Your task to perform on an android device: allow cookies in the chrome app Image 0: 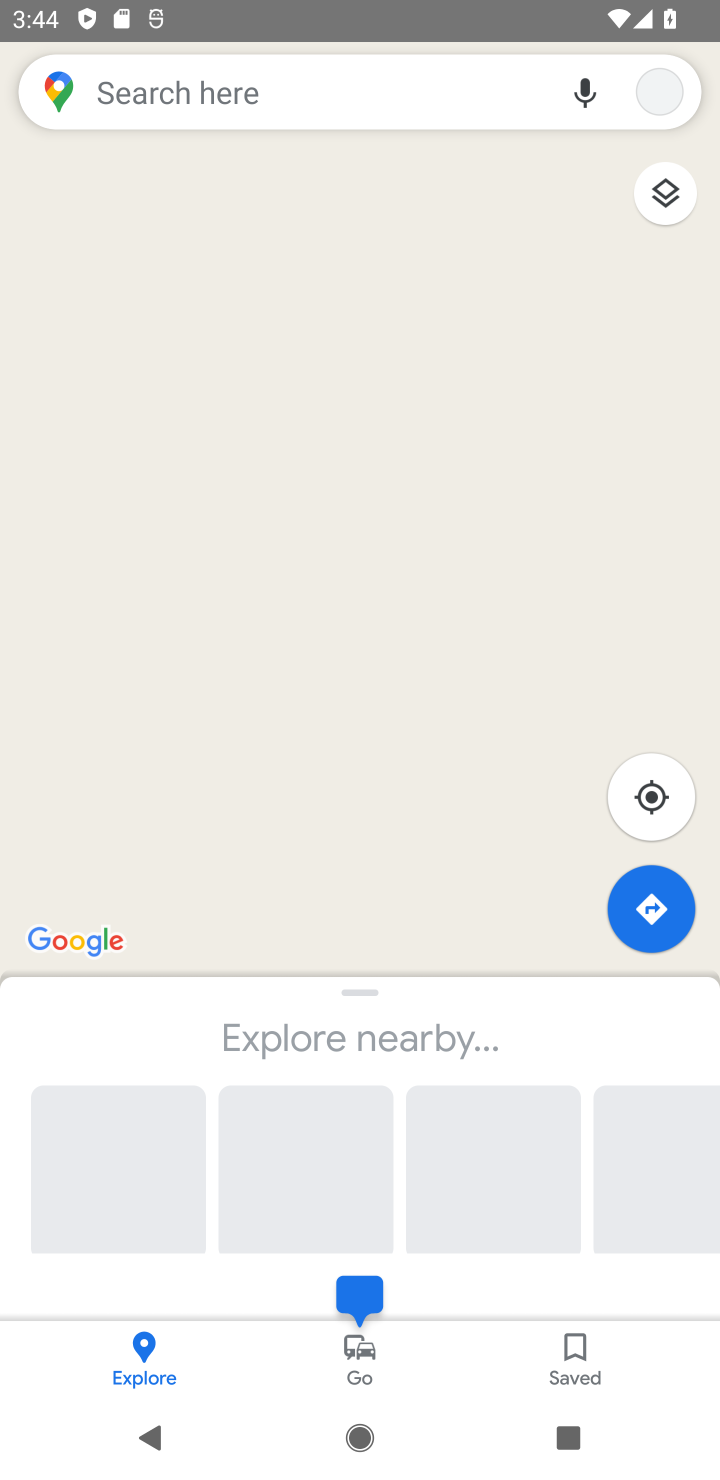
Step 0: drag from (359, 1227) to (508, 583)
Your task to perform on an android device: allow cookies in the chrome app Image 1: 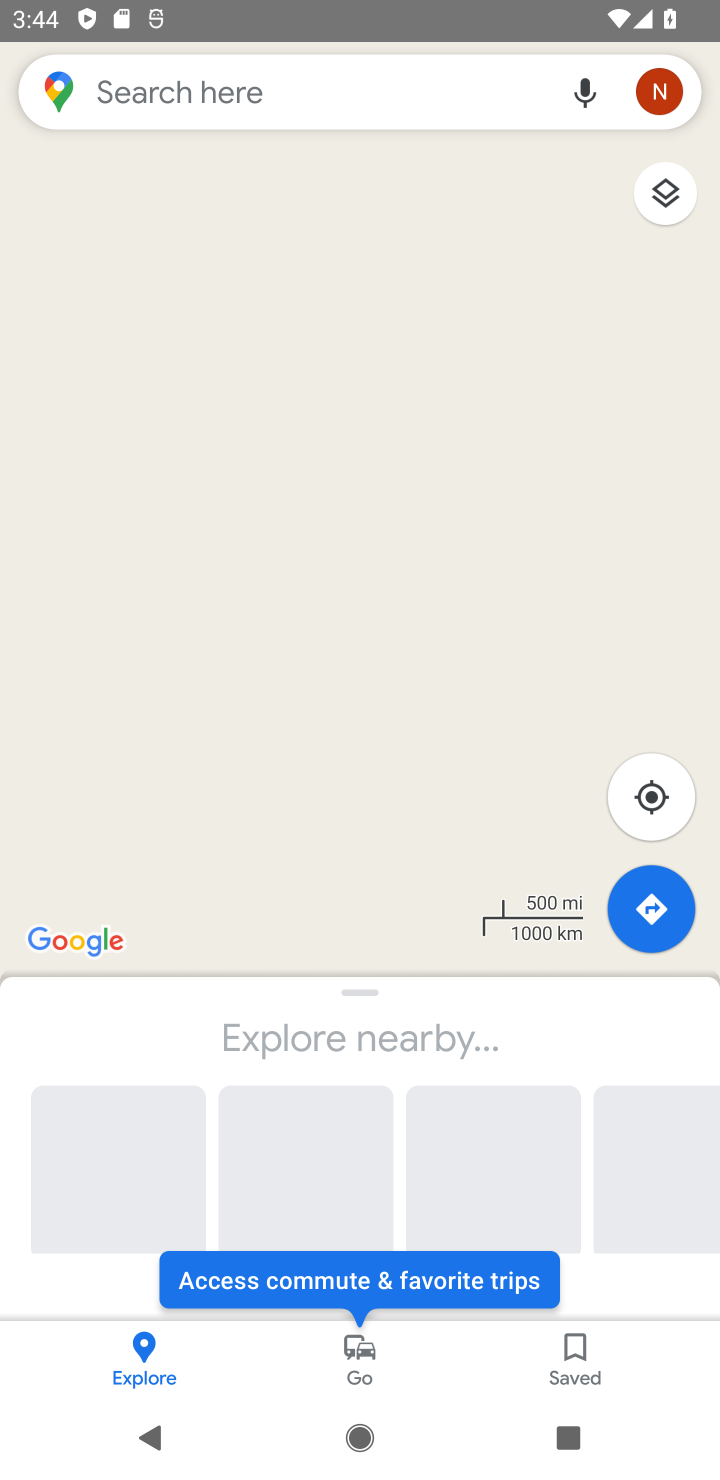
Step 1: press home button
Your task to perform on an android device: allow cookies in the chrome app Image 2: 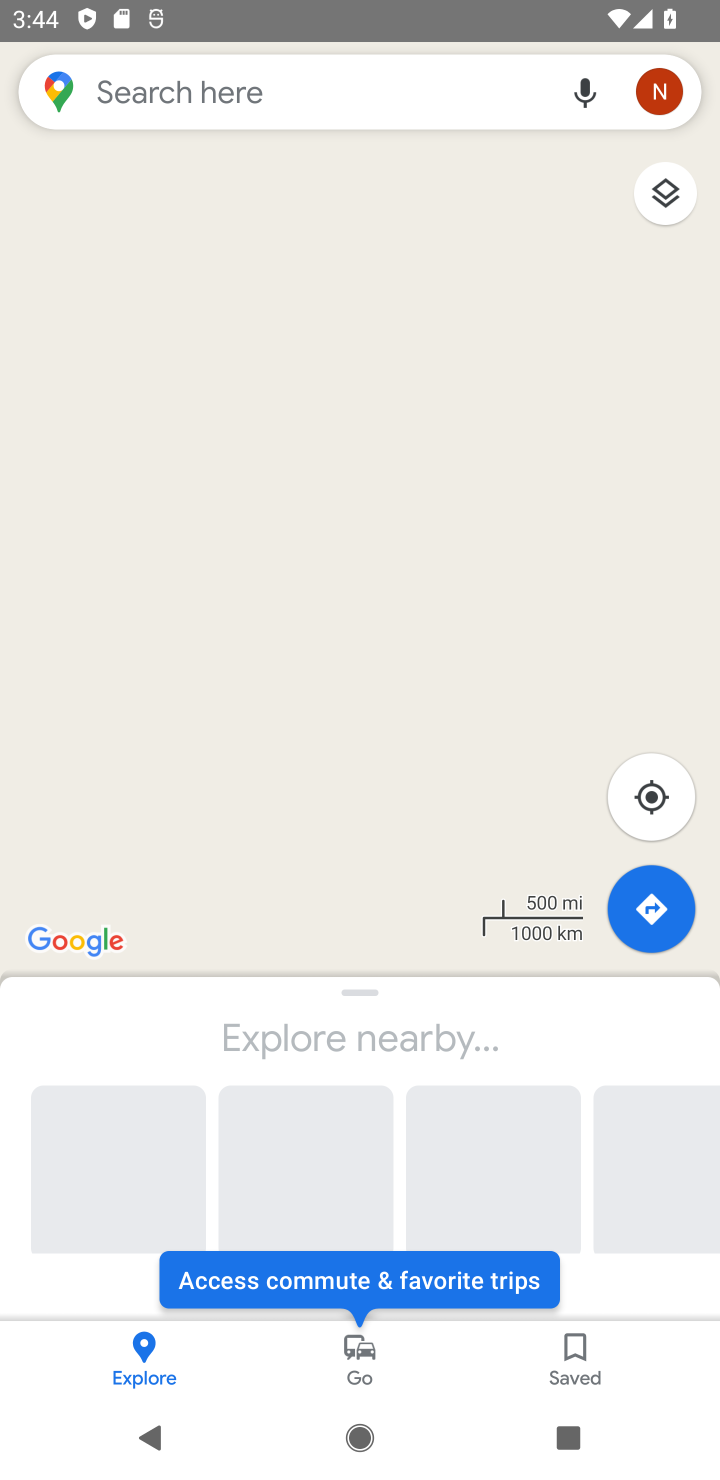
Step 2: drag from (456, 1012) to (563, 117)
Your task to perform on an android device: allow cookies in the chrome app Image 3: 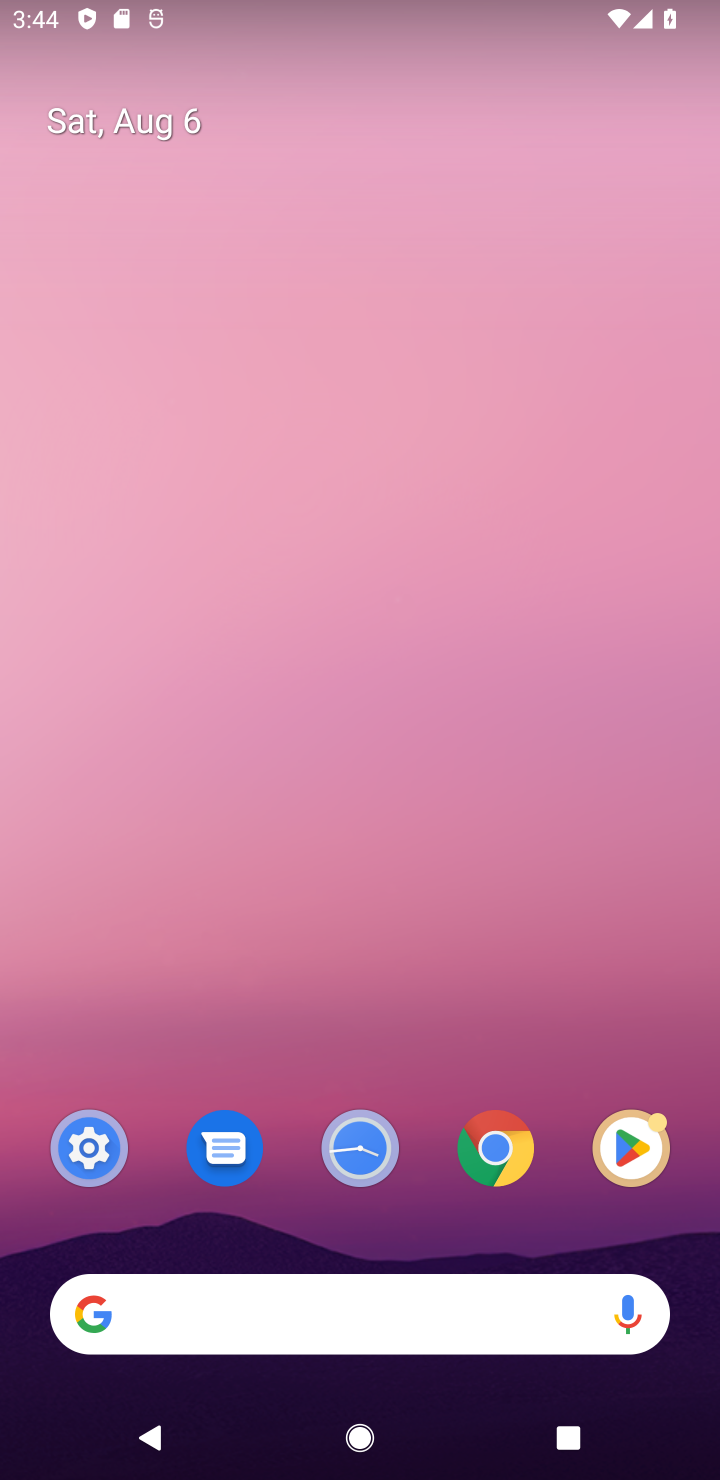
Step 3: click (504, 1129)
Your task to perform on an android device: allow cookies in the chrome app Image 4: 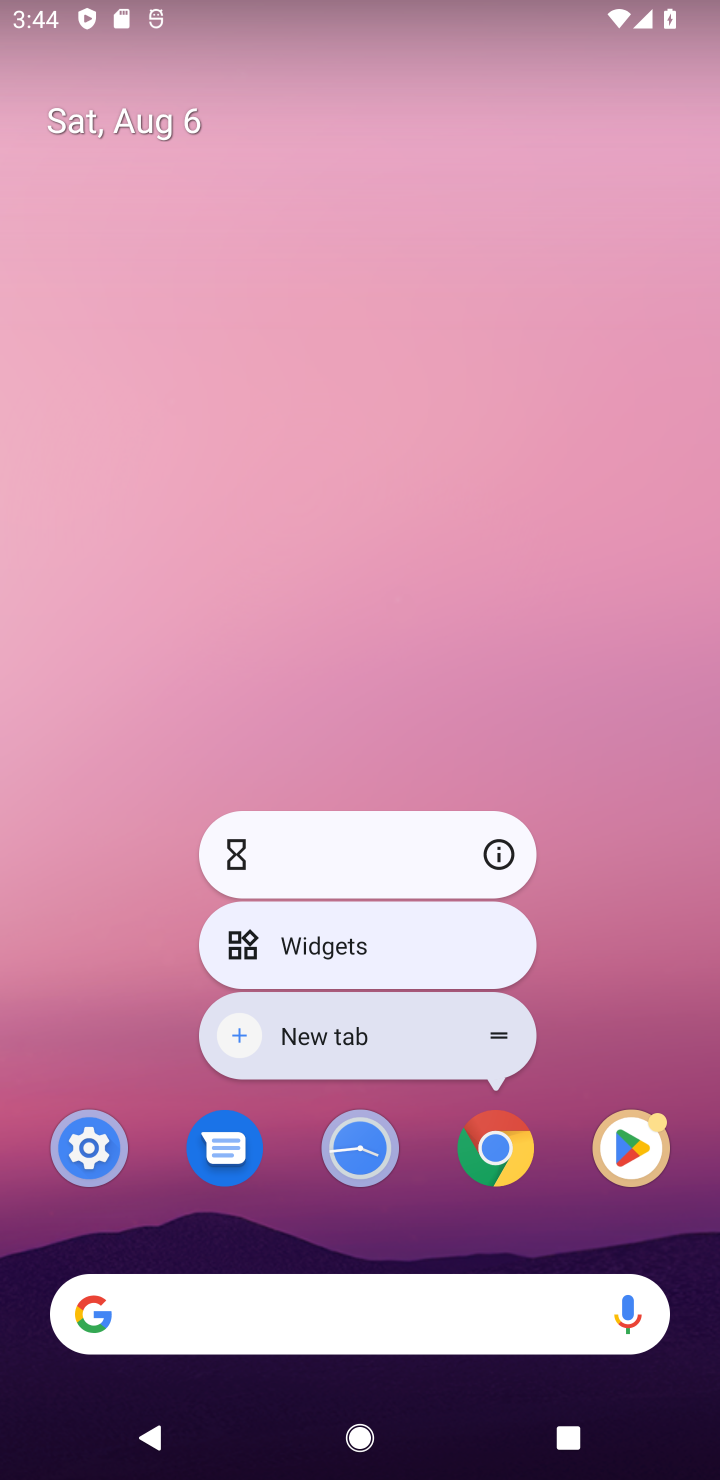
Step 4: click (483, 856)
Your task to perform on an android device: allow cookies in the chrome app Image 5: 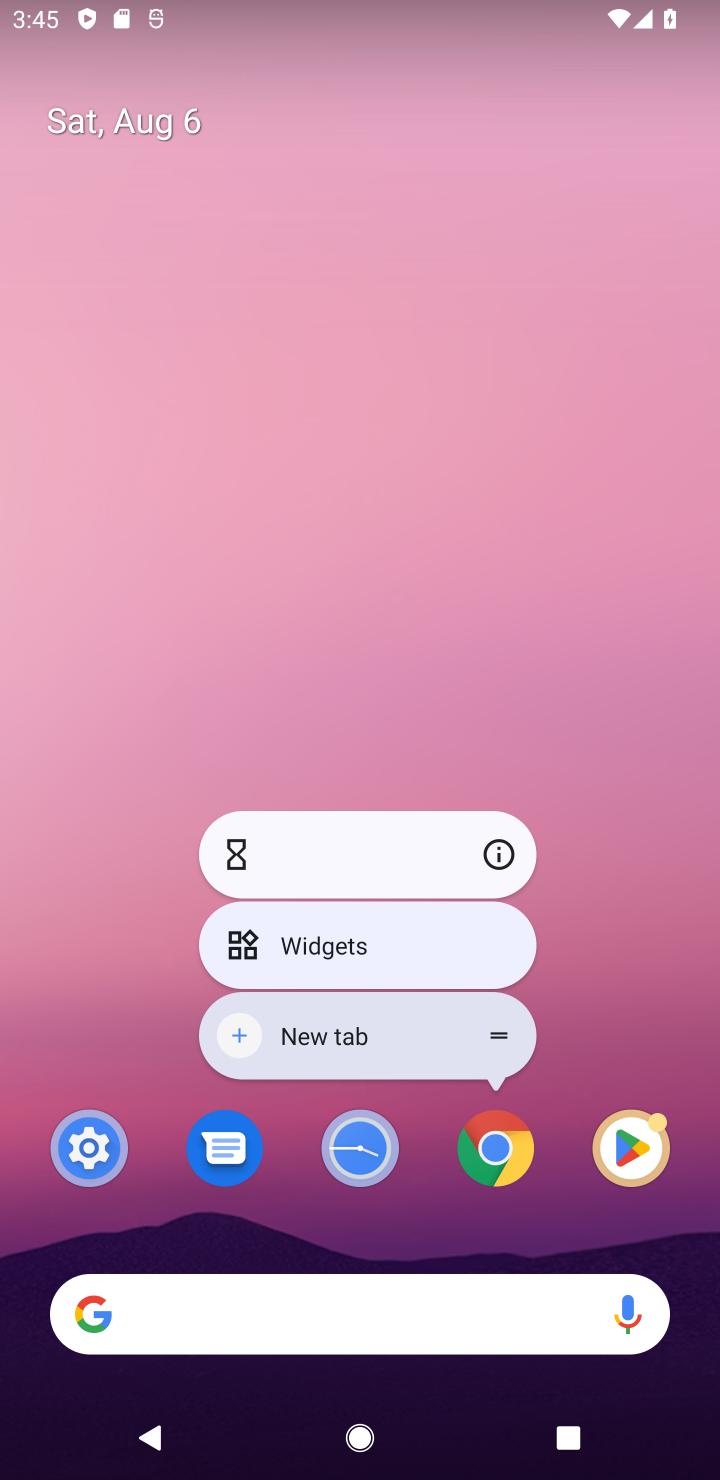
Step 5: click (498, 842)
Your task to perform on an android device: allow cookies in the chrome app Image 6: 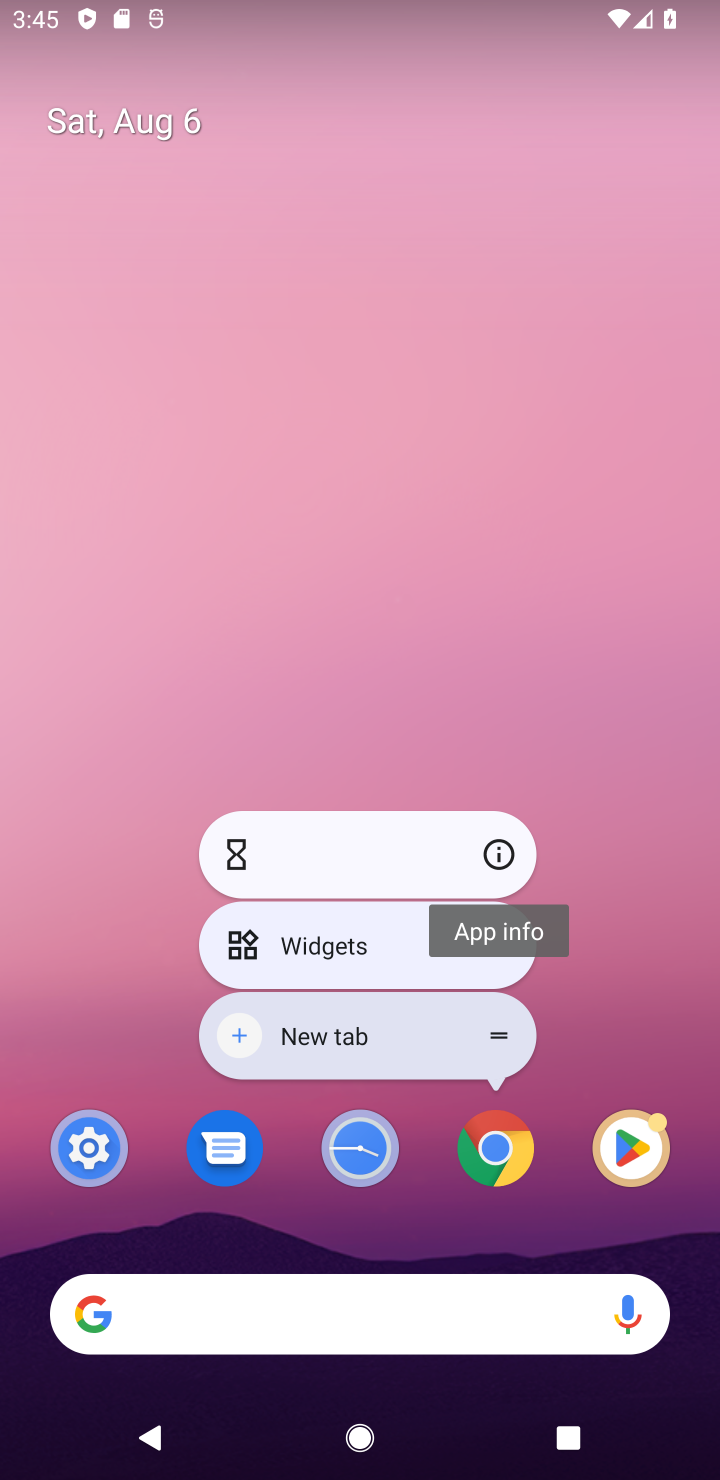
Step 6: click (518, 854)
Your task to perform on an android device: allow cookies in the chrome app Image 7: 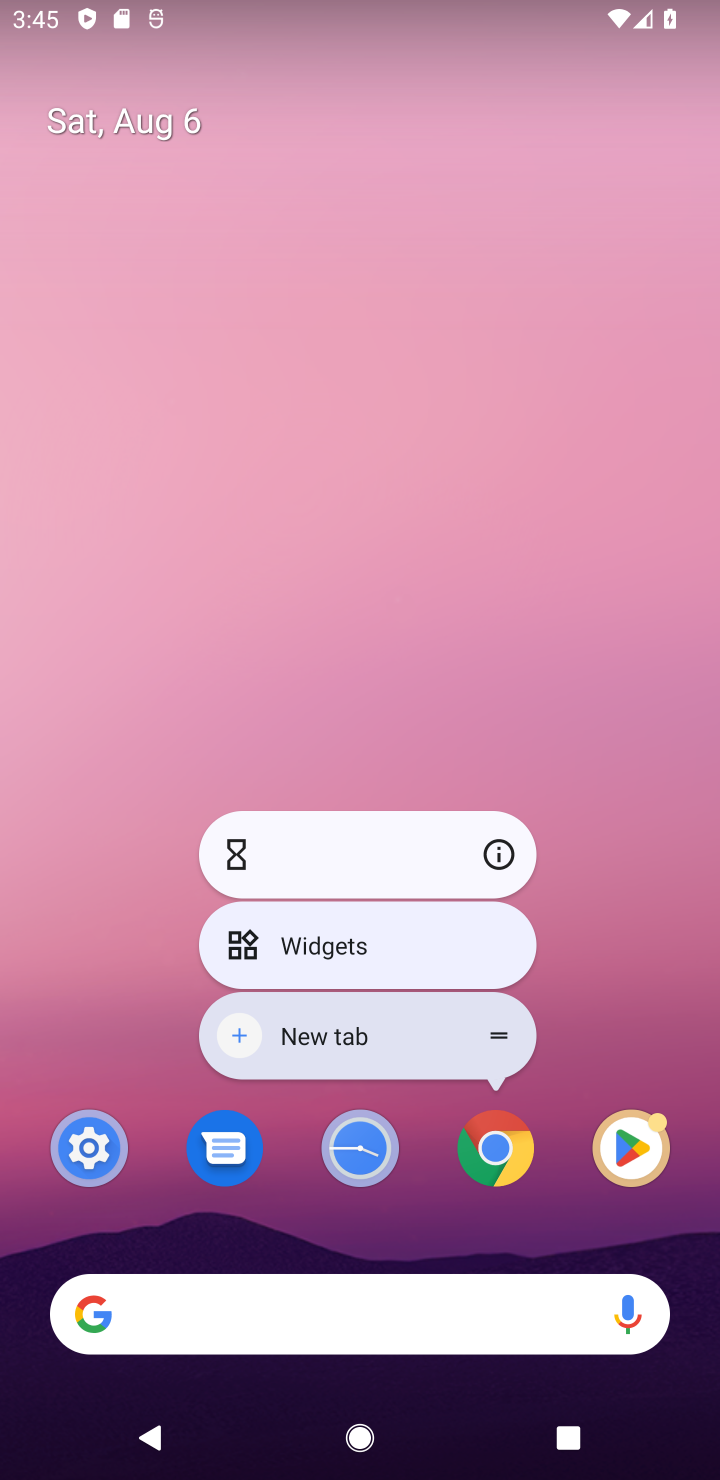
Step 7: click (486, 854)
Your task to perform on an android device: allow cookies in the chrome app Image 8: 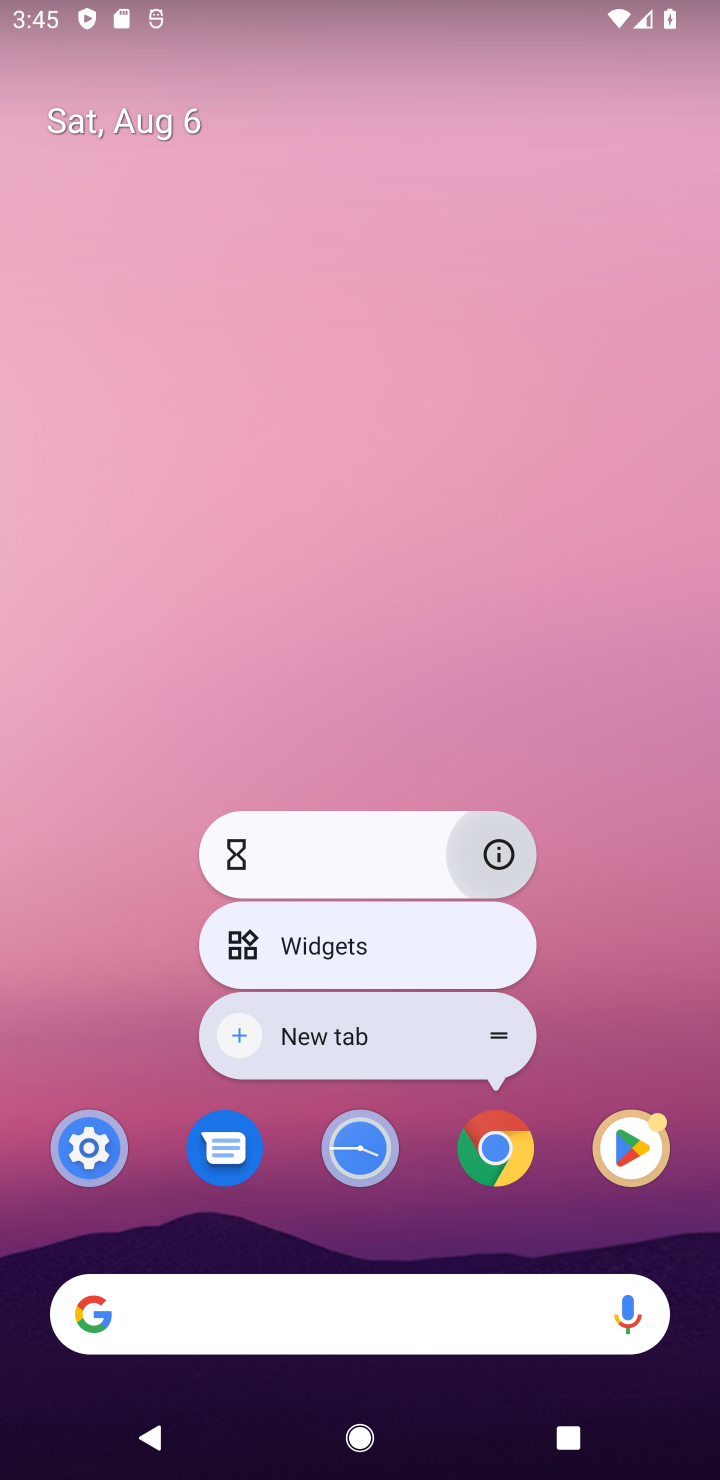
Step 8: click (486, 854)
Your task to perform on an android device: allow cookies in the chrome app Image 9: 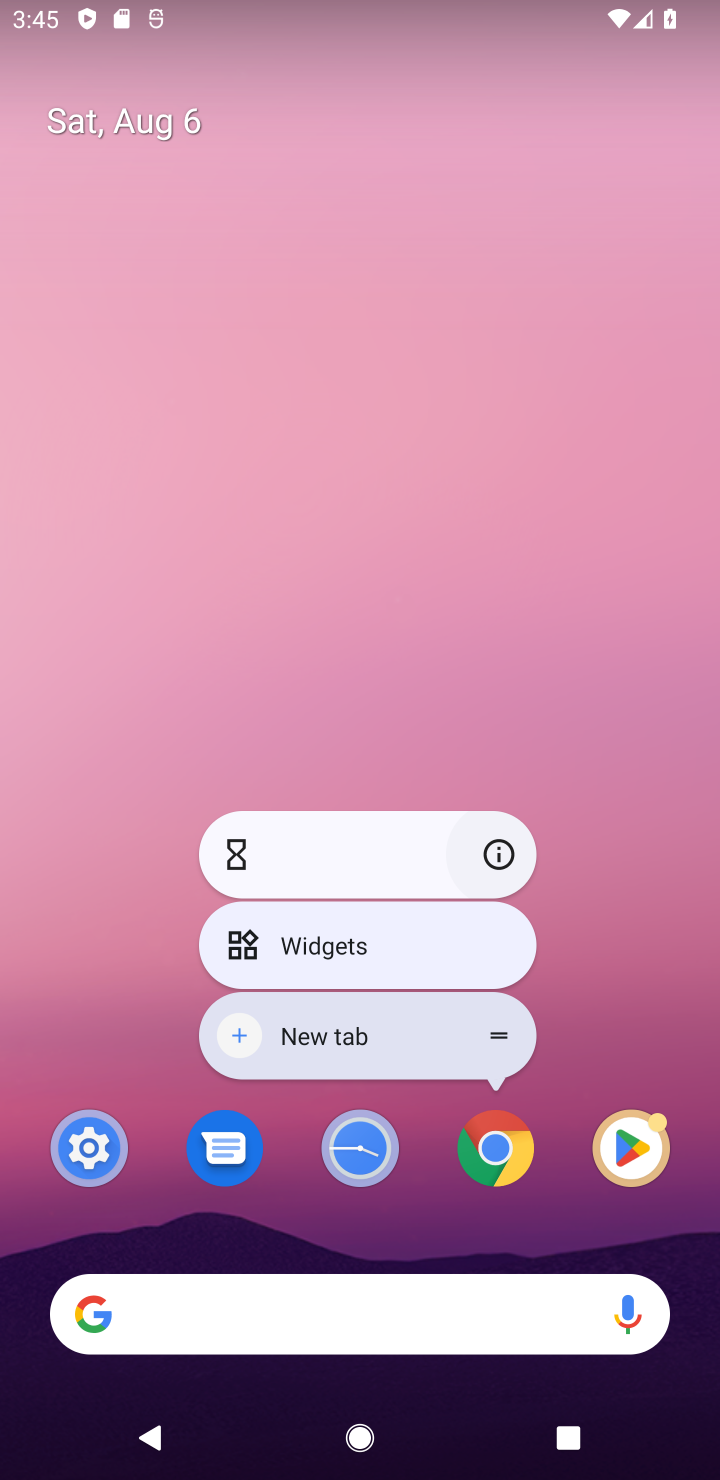
Step 9: click (486, 852)
Your task to perform on an android device: allow cookies in the chrome app Image 10: 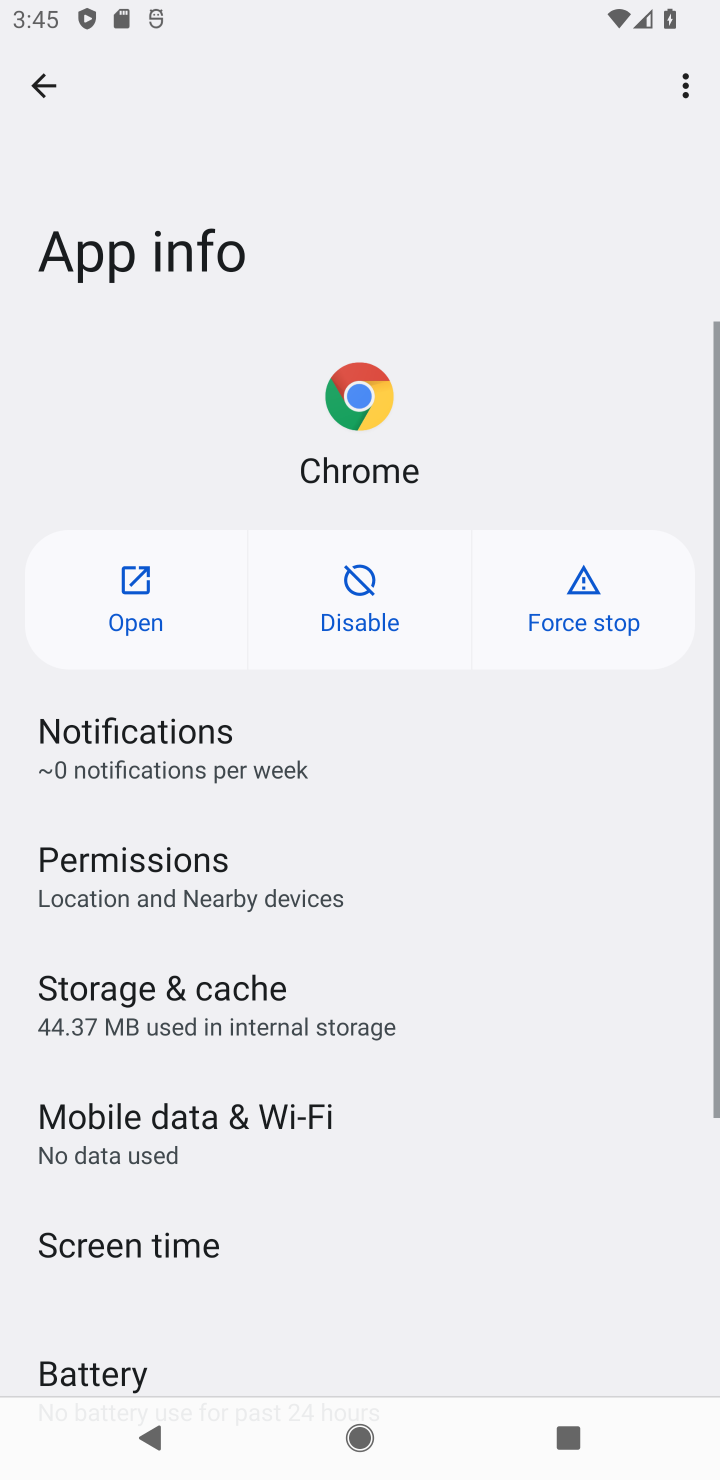
Step 10: click (114, 610)
Your task to perform on an android device: allow cookies in the chrome app Image 11: 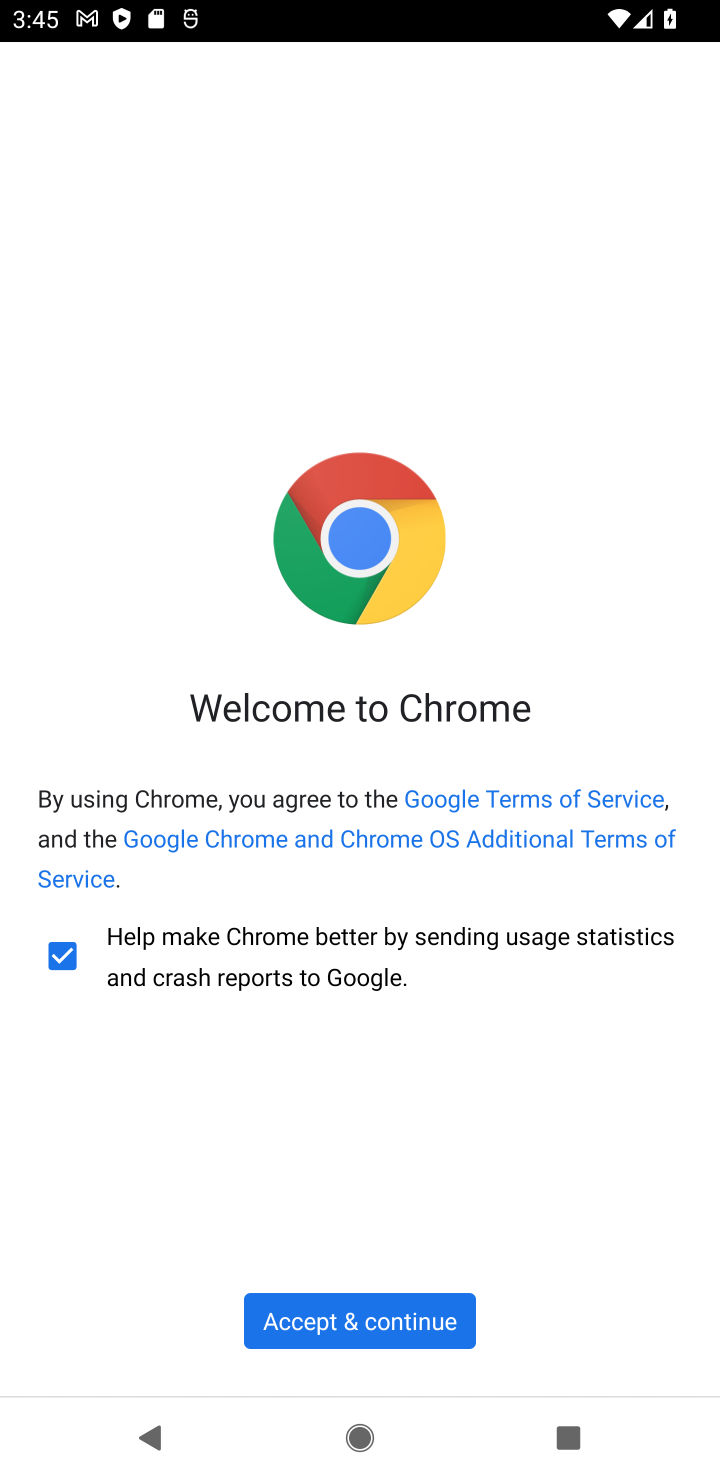
Step 11: drag from (340, 924) to (340, 615)
Your task to perform on an android device: allow cookies in the chrome app Image 12: 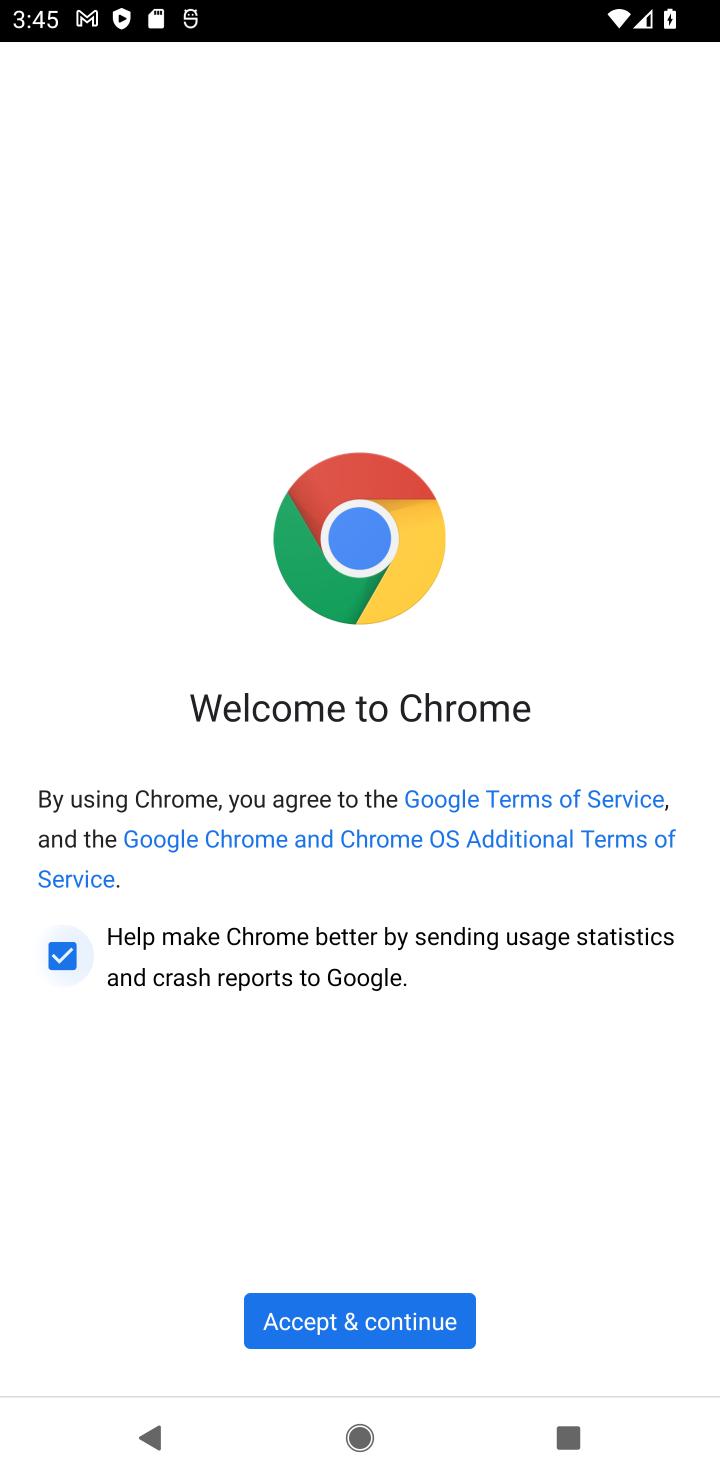
Step 12: click (394, 1333)
Your task to perform on an android device: allow cookies in the chrome app Image 13: 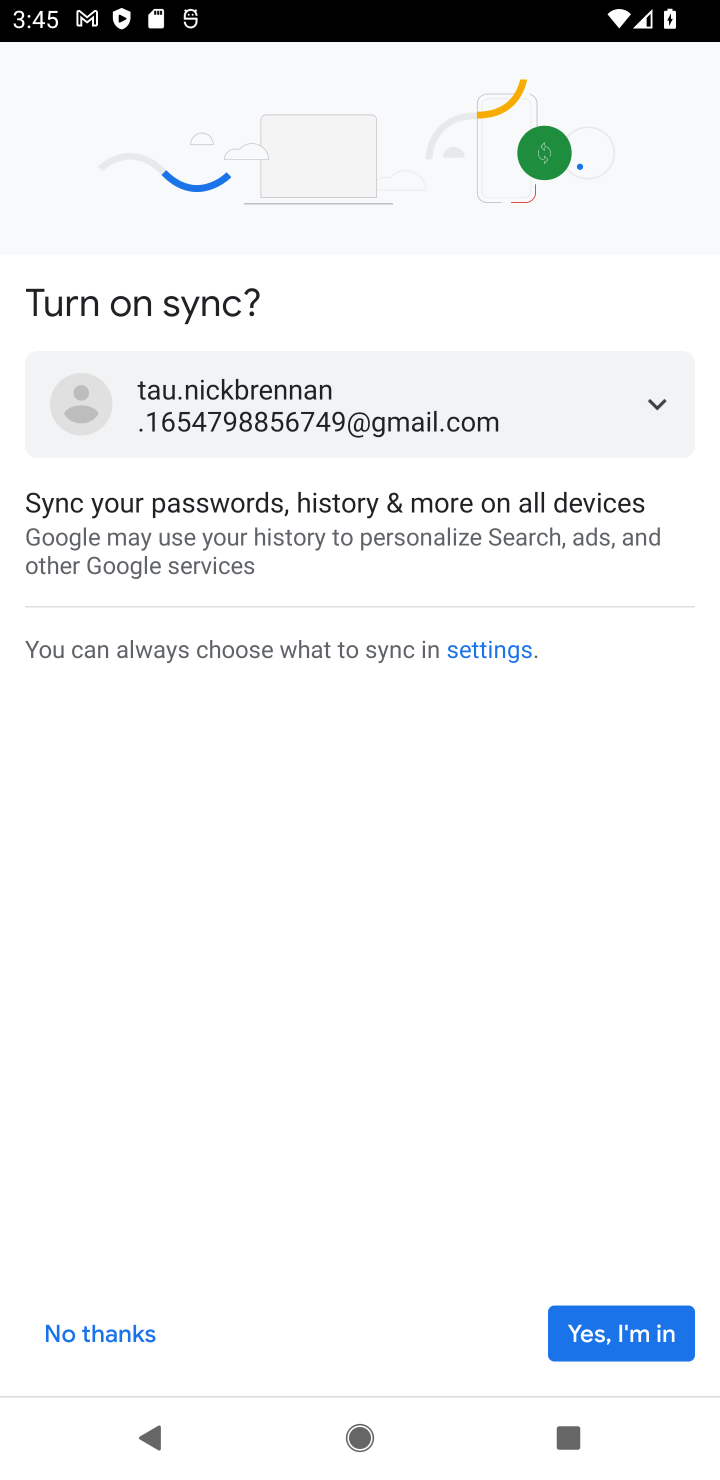
Step 13: click (589, 1331)
Your task to perform on an android device: allow cookies in the chrome app Image 14: 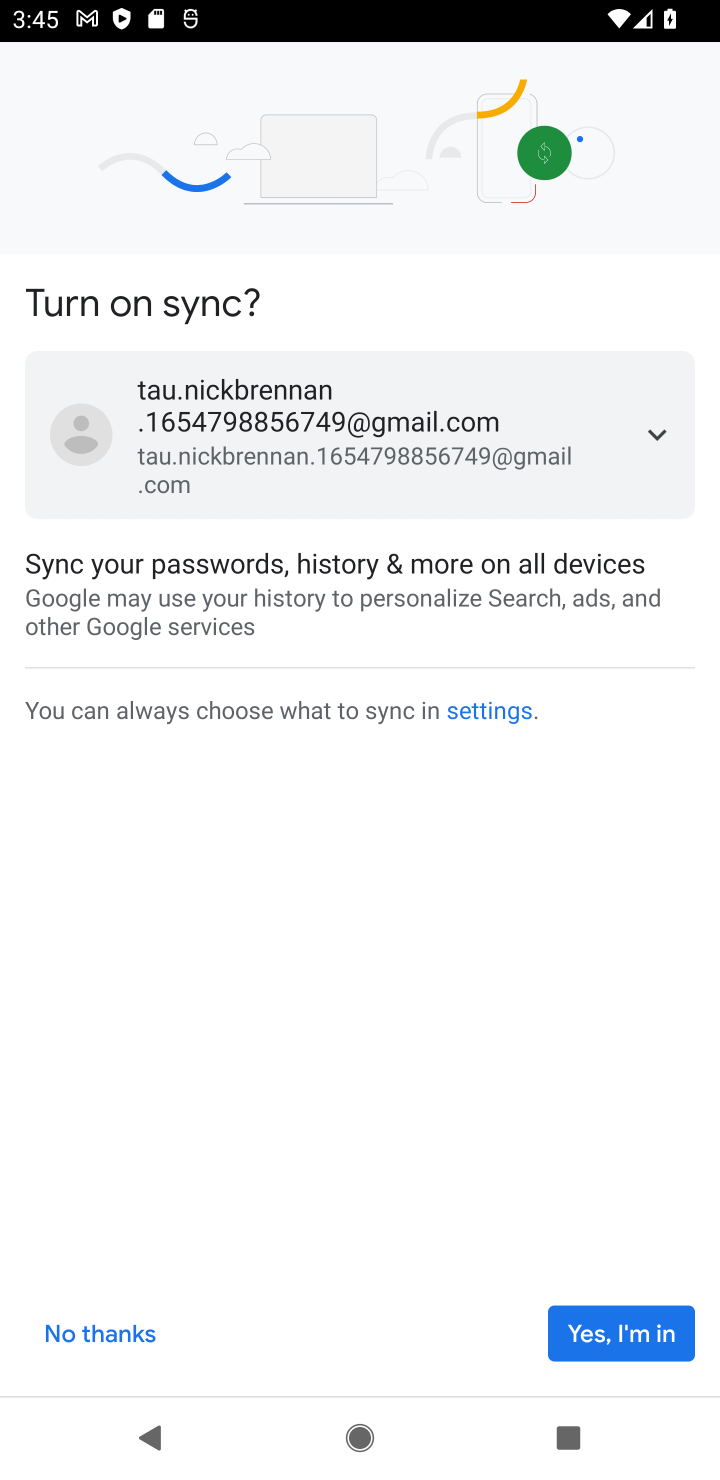
Step 14: click (632, 1330)
Your task to perform on an android device: allow cookies in the chrome app Image 15: 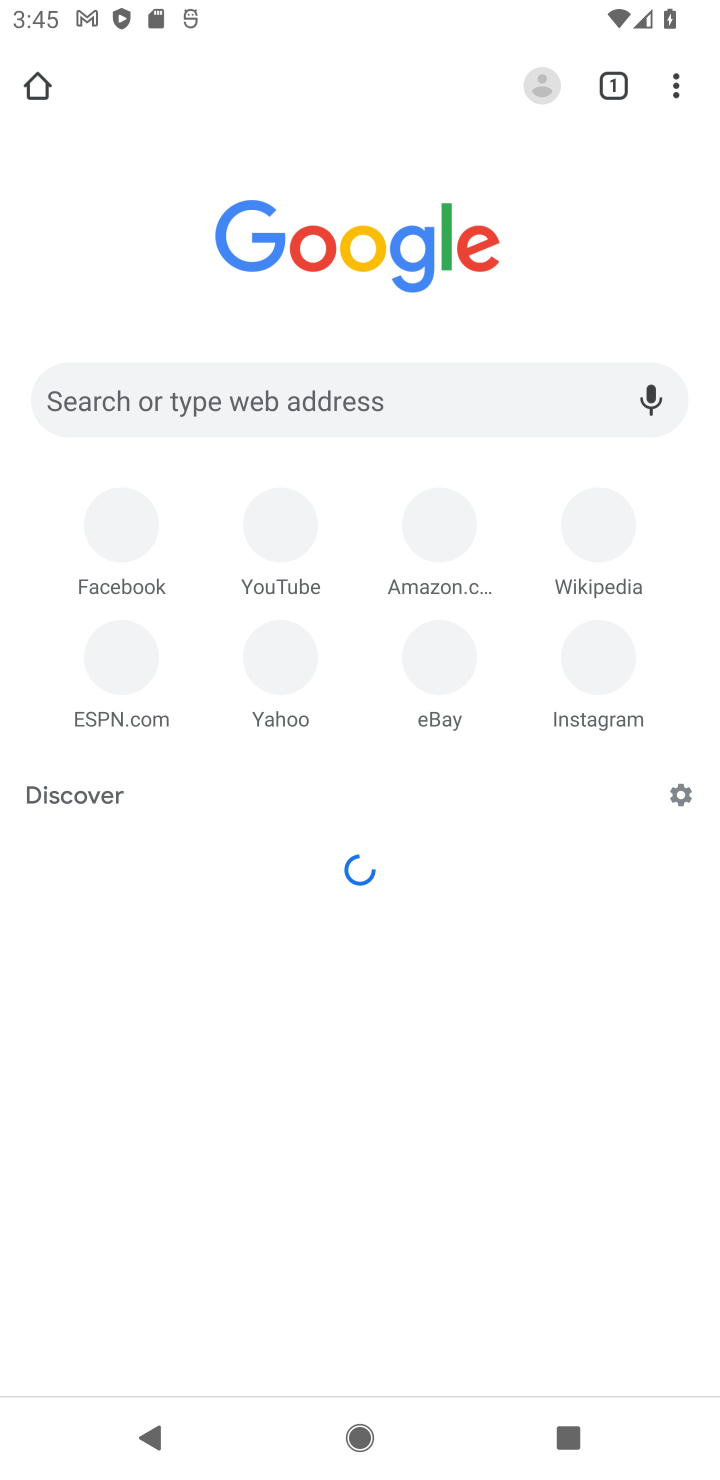
Step 15: drag from (672, 74) to (463, 727)
Your task to perform on an android device: allow cookies in the chrome app Image 16: 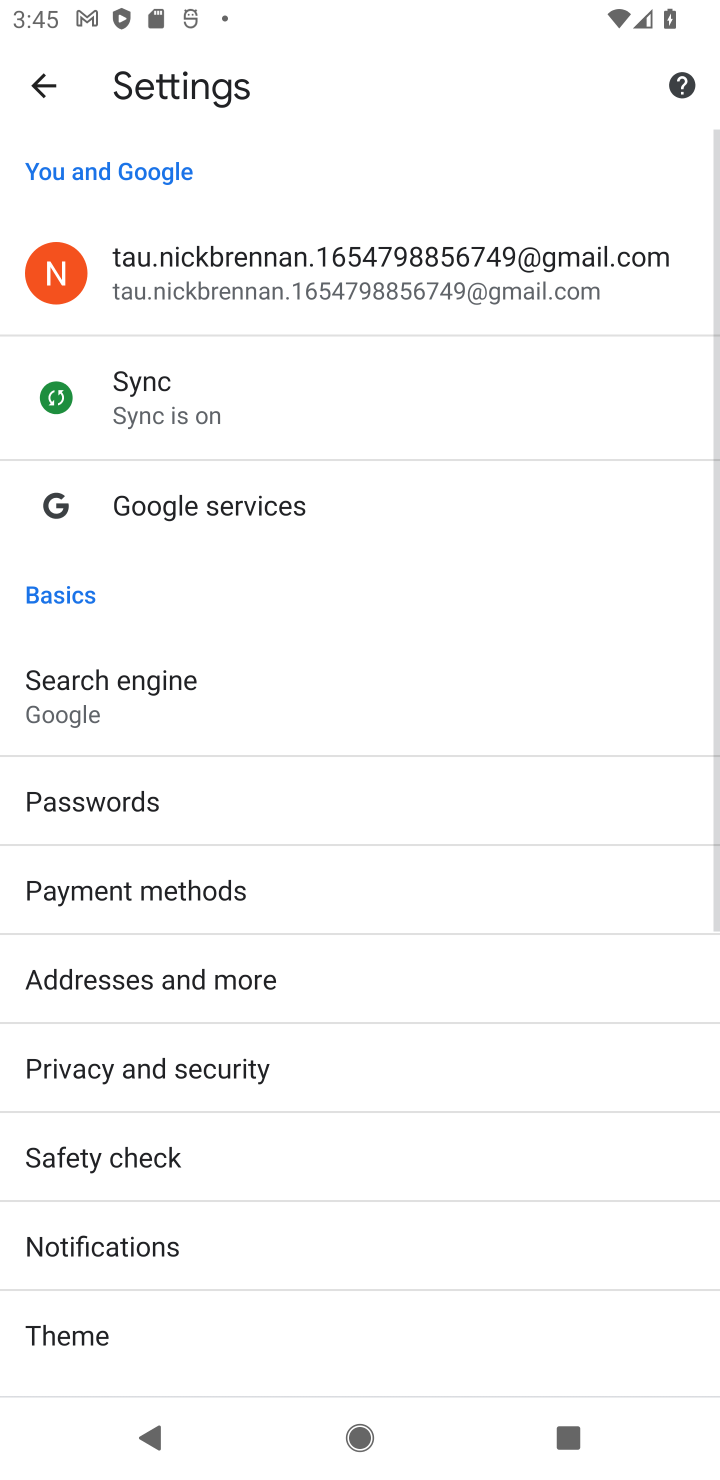
Step 16: drag from (290, 1224) to (362, 516)
Your task to perform on an android device: allow cookies in the chrome app Image 17: 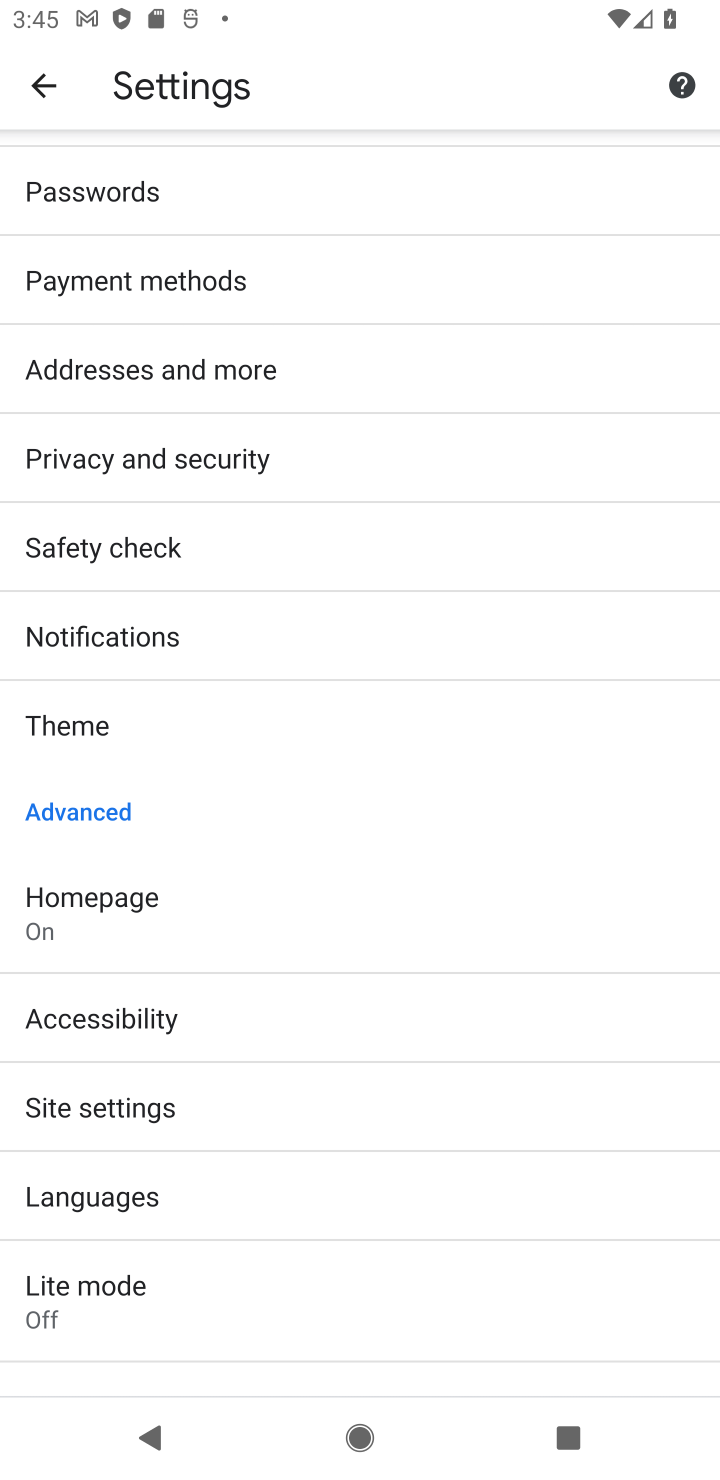
Step 17: click (163, 1092)
Your task to perform on an android device: allow cookies in the chrome app Image 18: 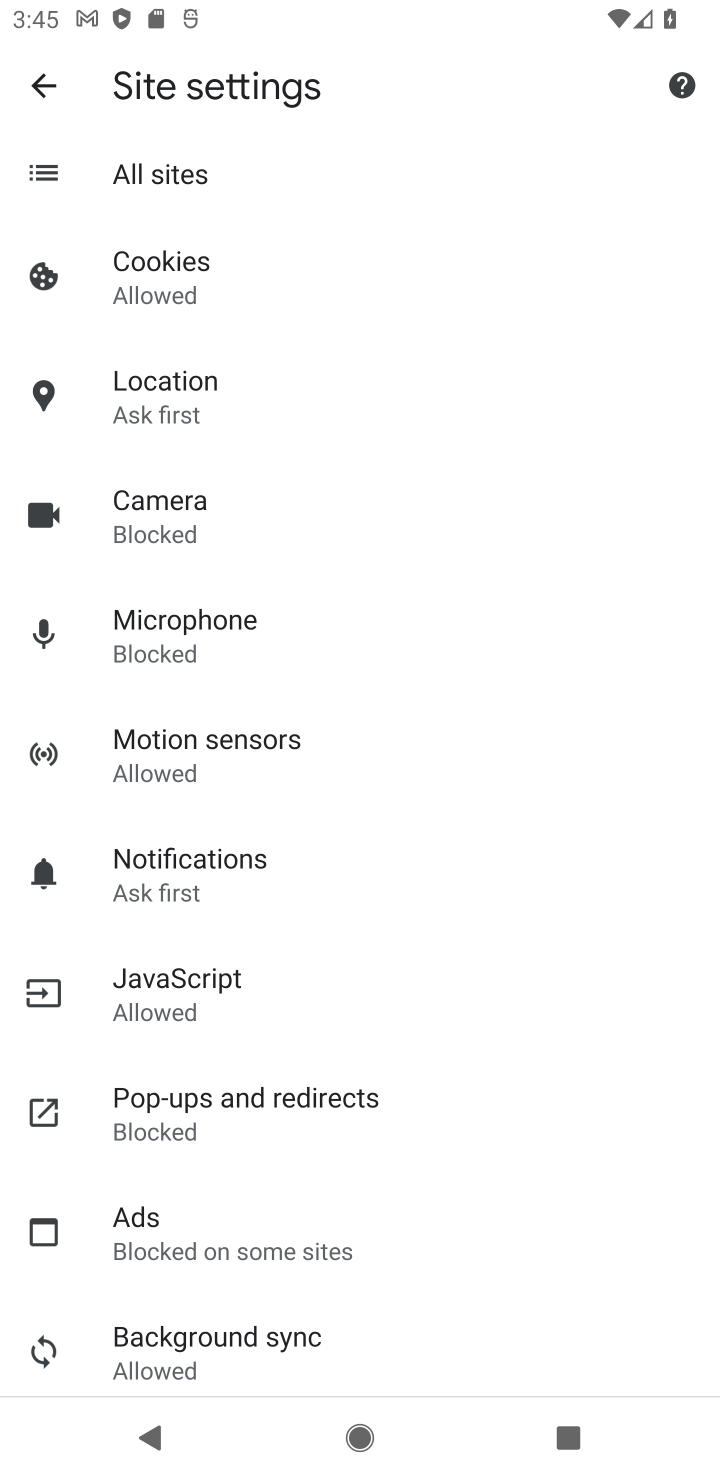
Step 18: click (203, 282)
Your task to perform on an android device: allow cookies in the chrome app Image 19: 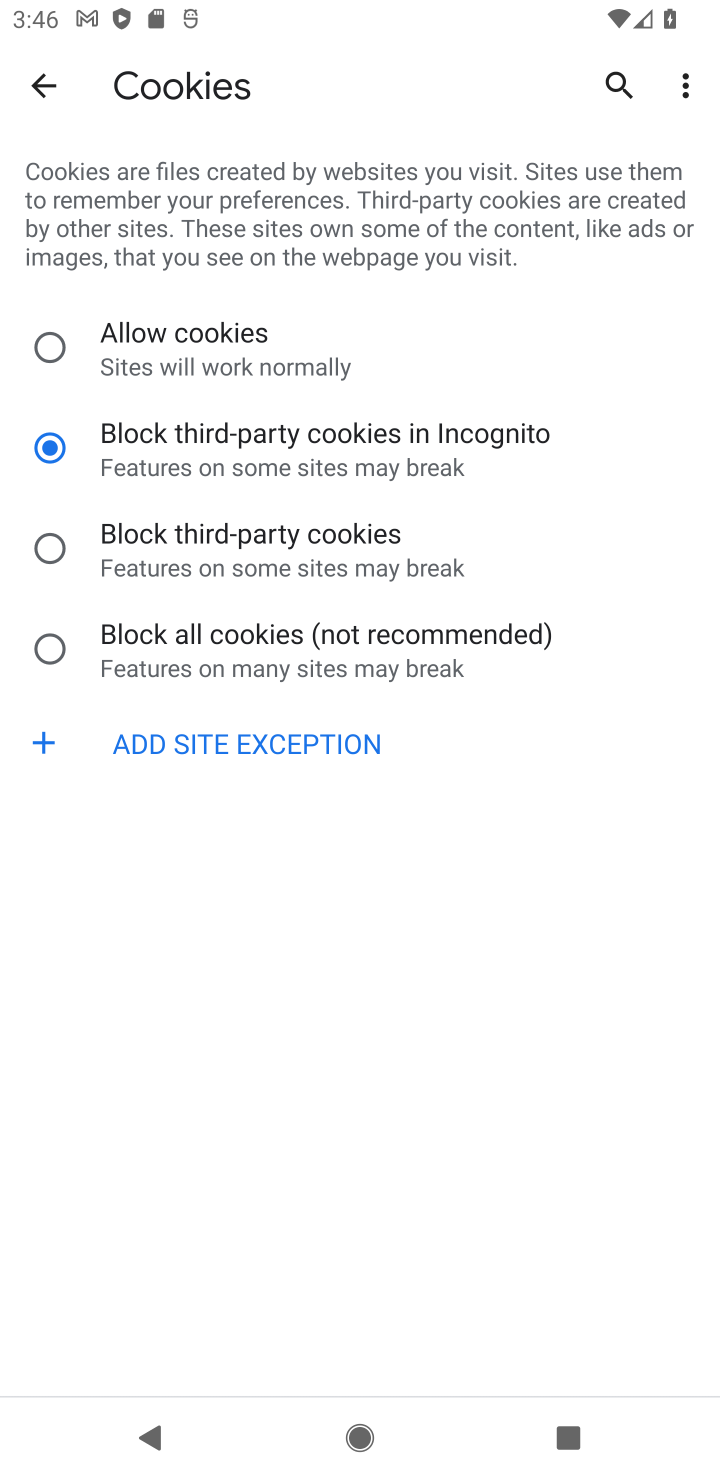
Step 19: click (214, 341)
Your task to perform on an android device: allow cookies in the chrome app Image 20: 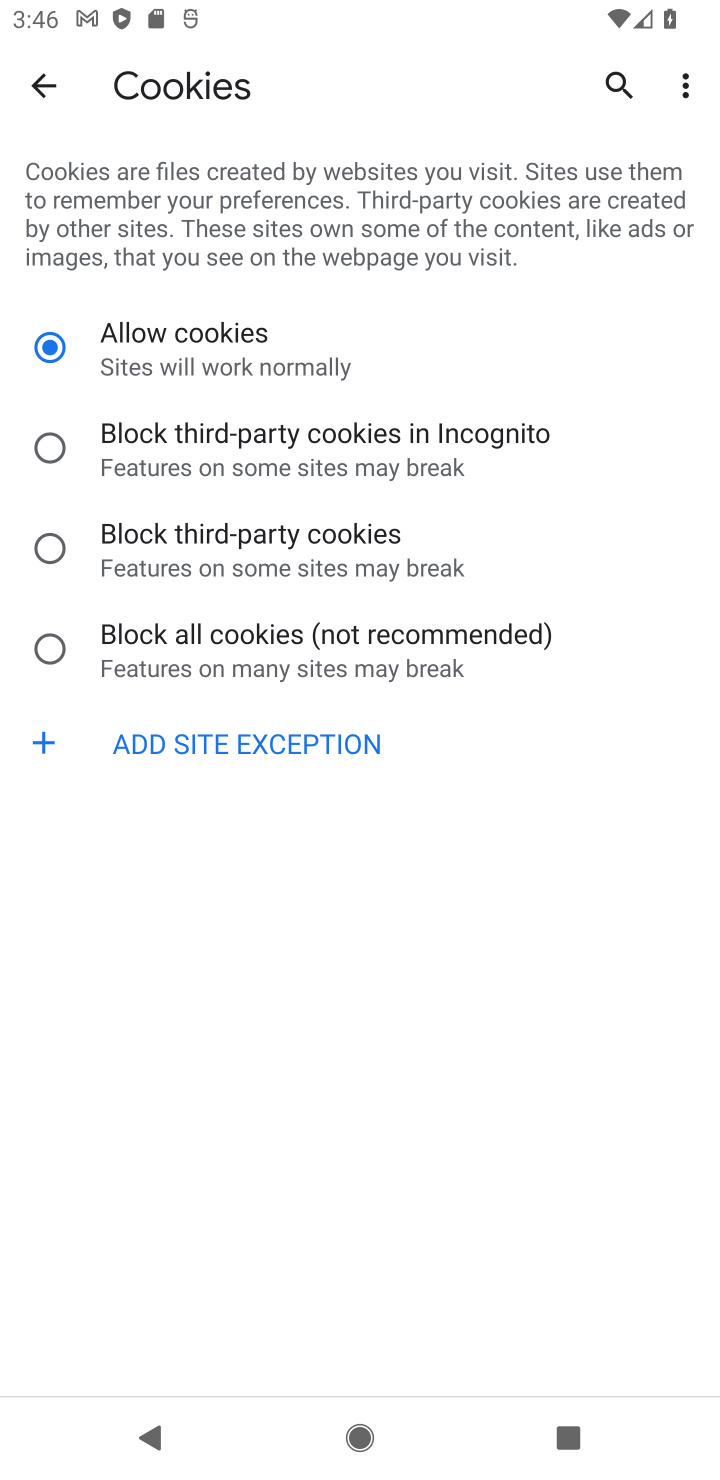
Step 20: task complete